Your task to perform on an android device: Search for flights from Helsinki to Seoul Image 0: 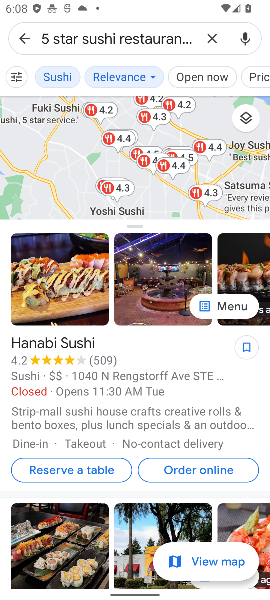
Step 0: press home button
Your task to perform on an android device: Search for flights from Helsinki to Seoul Image 1: 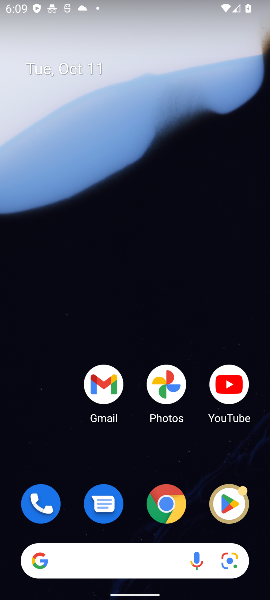
Step 1: click (104, 551)
Your task to perform on an android device: Search for flights from Helsinki to Seoul Image 2: 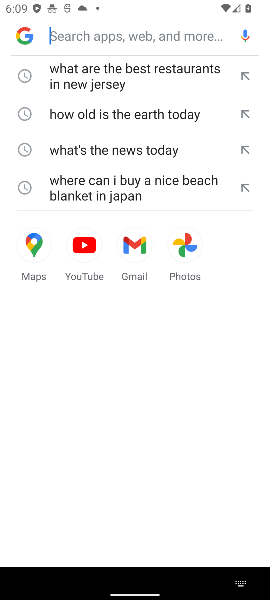
Step 2: click (98, 42)
Your task to perform on an android device: Search for flights from Helsinki to Seoul Image 3: 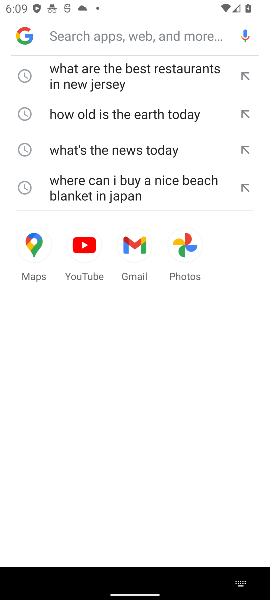
Step 3: type "flights from Helsinki to Seoul"
Your task to perform on an android device: Search for flights from Helsinki to Seoul Image 4: 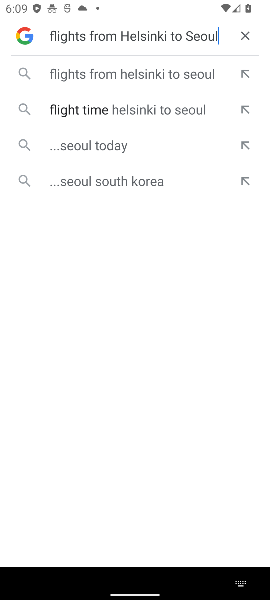
Step 4: click (137, 70)
Your task to perform on an android device: Search for flights from Helsinki to Seoul Image 5: 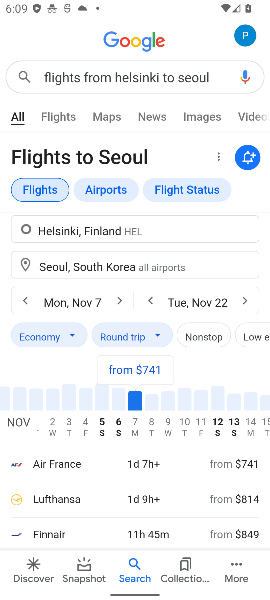
Step 5: task complete